Your task to perform on an android device: Open calendar and show me the second week of next month Image 0: 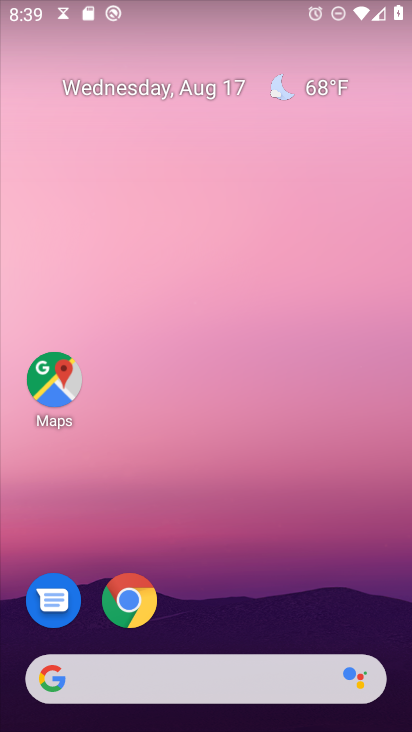
Step 0: drag from (223, 617) to (169, 110)
Your task to perform on an android device: Open calendar and show me the second week of next month Image 1: 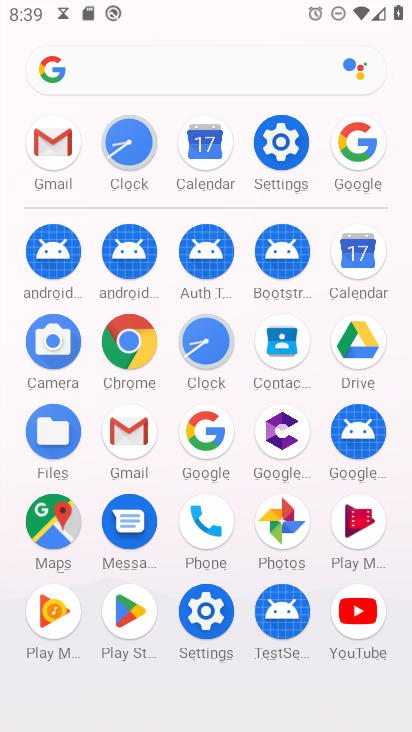
Step 1: click (349, 255)
Your task to perform on an android device: Open calendar and show me the second week of next month Image 2: 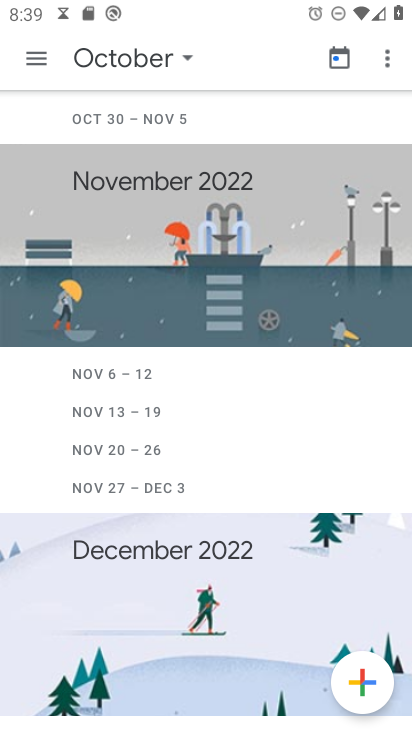
Step 2: click (41, 57)
Your task to perform on an android device: Open calendar and show me the second week of next month Image 3: 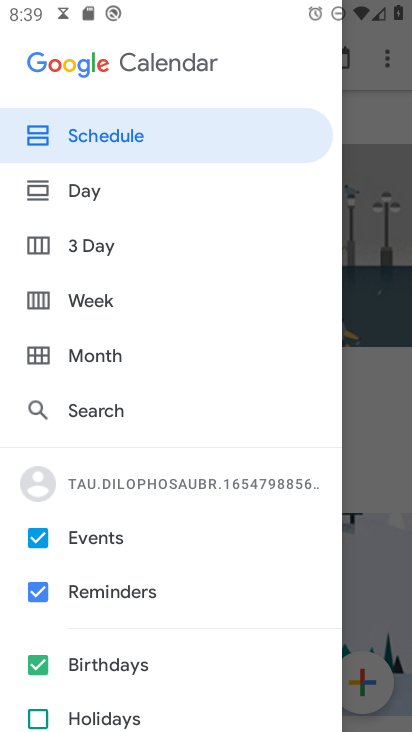
Step 3: click (118, 357)
Your task to perform on an android device: Open calendar and show me the second week of next month Image 4: 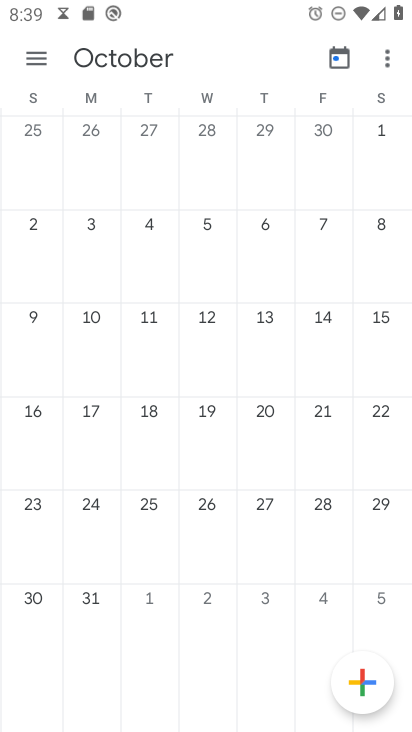
Step 4: task complete